Your task to perform on an android device: Open the calendar app, open the side menu, and click the "Day" option Image 0: 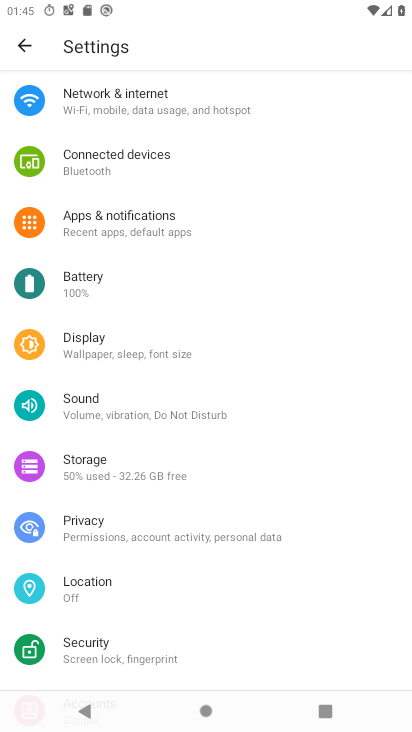
Step 0: press home button
Your task to perform on an android device: Open the calendar app, open the side menu, and click the "Day" option Image 1: 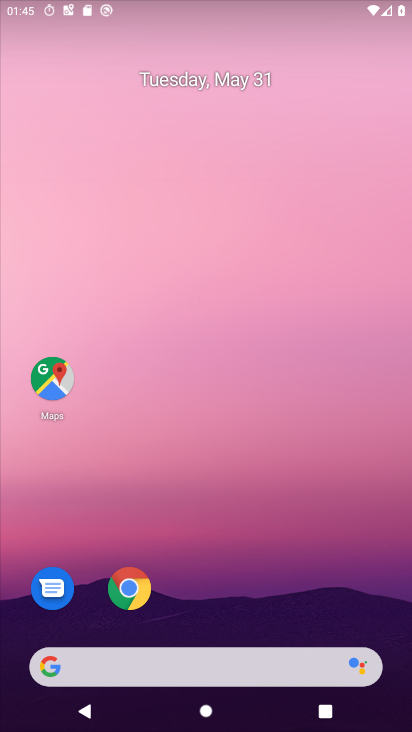
Step 1: drag from (246, 627) to (268, 26)
Your task to perform on an android device: Open the calendar app, open the side menu, and click the "Day" option Image 2: 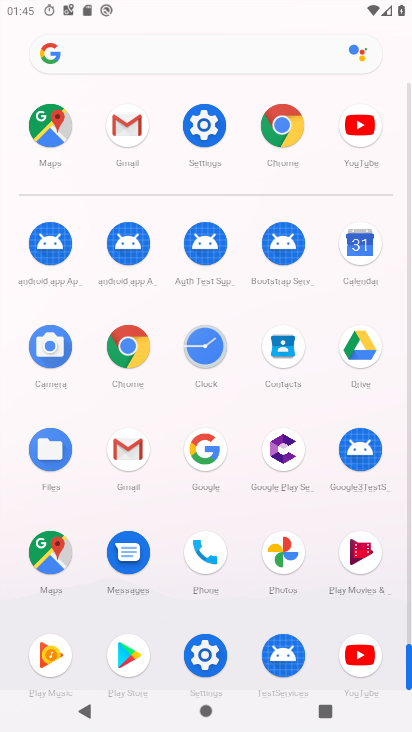
Step 2: click (370, 242)
Your task to perform on an android device: Open the calendar app, open the side menu, and click the "Day" option Image 3: 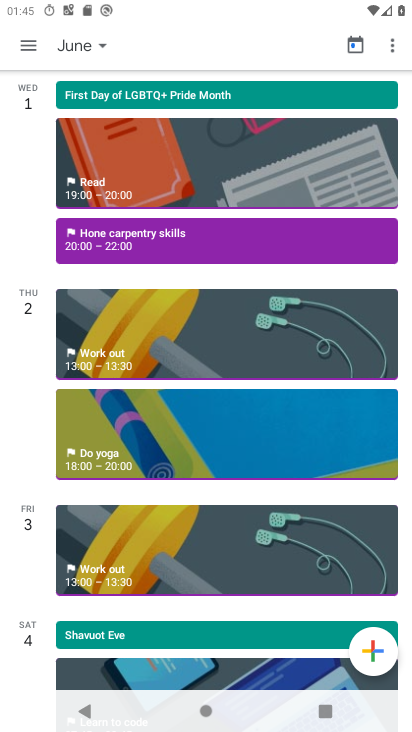
Step 3: click (30, 44)
Your task to perform on an android device: Open the calendar app, open the side menu, and click the "Day" option Image 4: 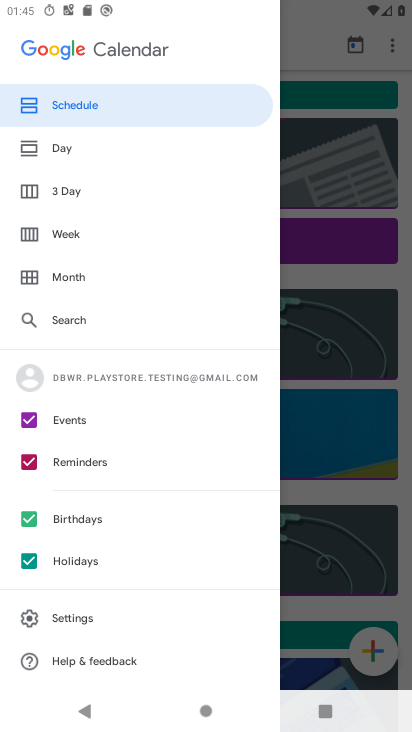
Step 4: click (68, 139)
Your task to perform on an android device: Open the calendar app, open the side menu, and click the "Day" option Image 5: 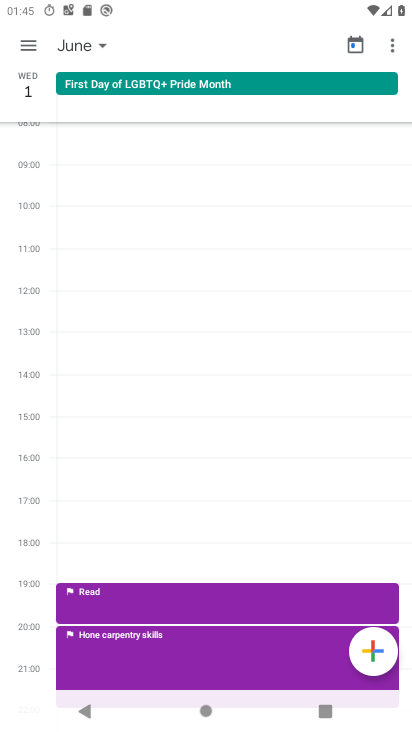
Step 5: task complete